Your task to perform on an android device: Go to Amazon Image 0: 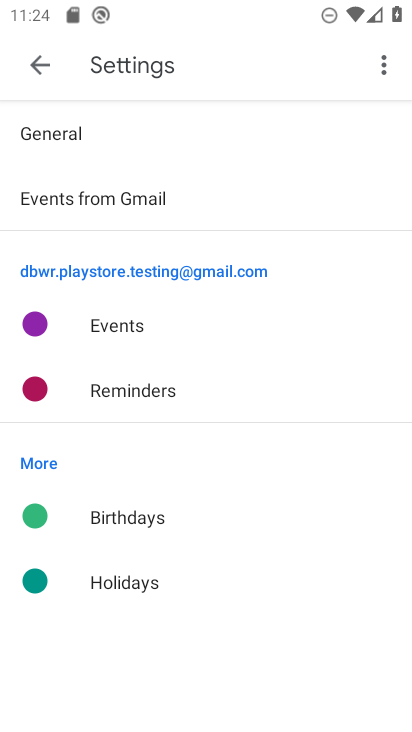
Step 0: press home button
Your task to perform on an android device: Go to Amazon Image 1: 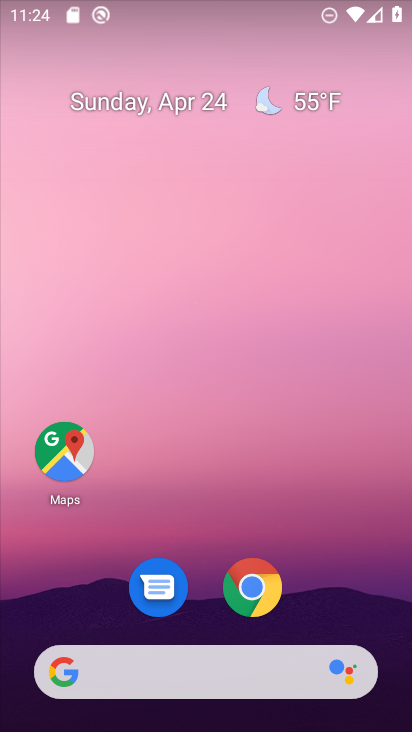
Step 1: click (277, 593)
Your task to perform on an android device: Go to Amazon Image 2: 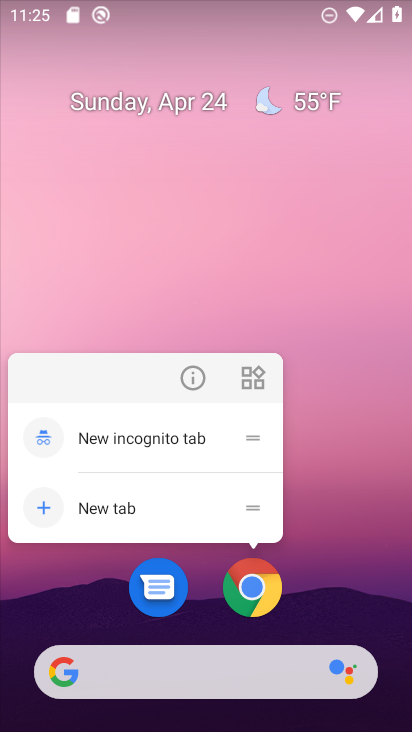
Step 2: click (245, 590)
Your task to perform on an android device: Go to Amazon Image 3: 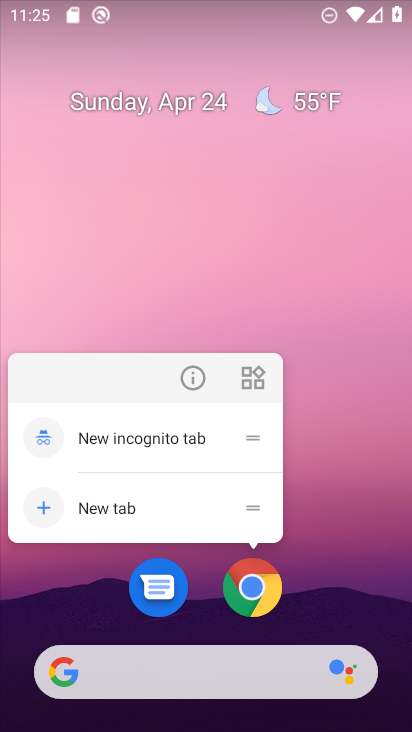
Step 3: click (328, 588)
Your task to perform on an android device: Go to Amazon Image 4: 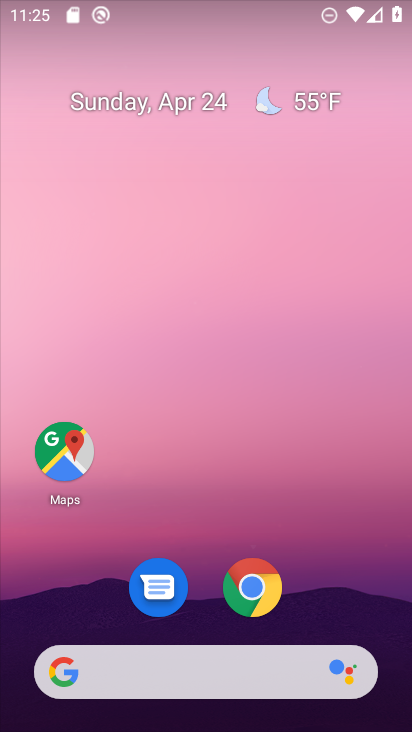
Step 4: drag from (337, 561) to (345, 115)
Your task to perform on an android device: Go to Amazon Image 5: 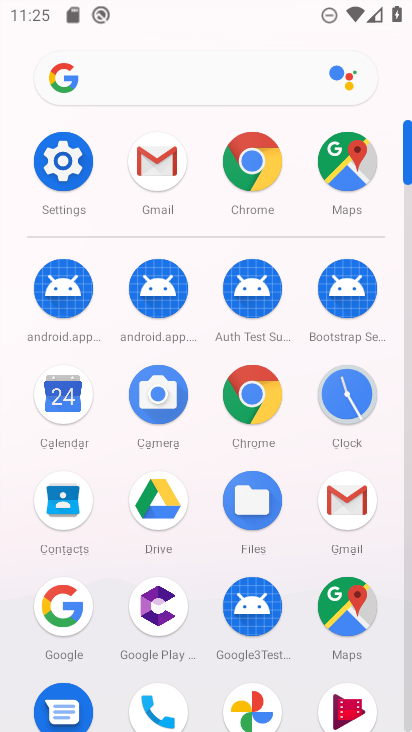
Step 5: click (257, 398)
Your task to perform on an android device: Go to Amazon Image 6: 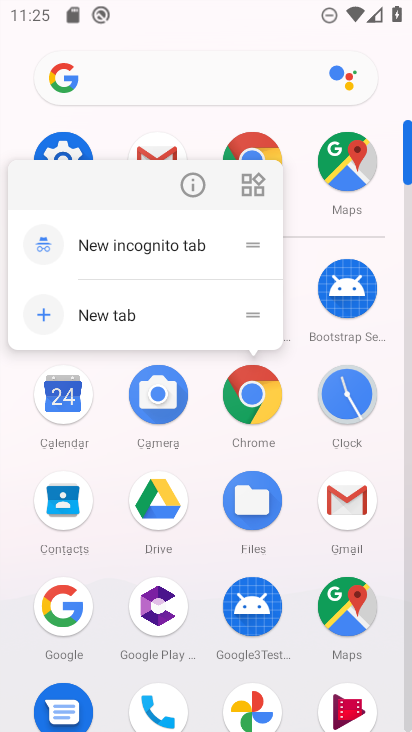
Step 6: click (244, 394)
Your task to perform on an android device: Go to Amazon Image 7: 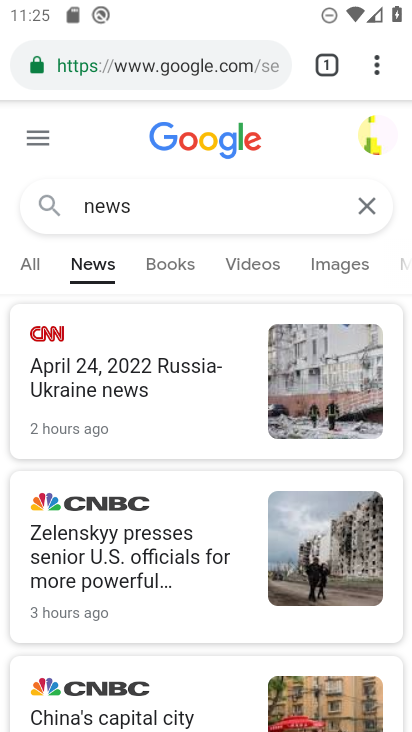
Step 7: click (211, 55)
Your task to perform on an android device: Go to Amazon Image 8: 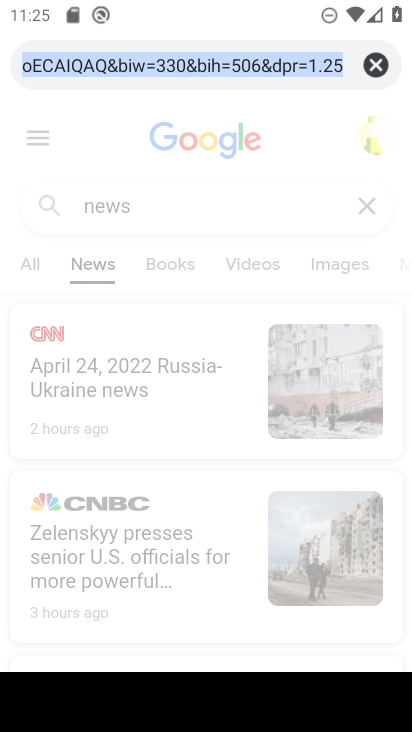
Step 8: type "amazon"
Your task to perform on an android device: Go to Amazon Image 9: 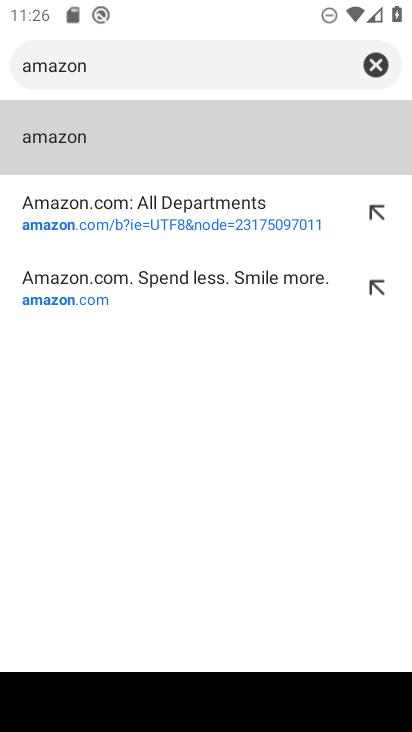
Step 9: click (94, 140)
Your task to perform on an android device: Go to Amazon Image 10: 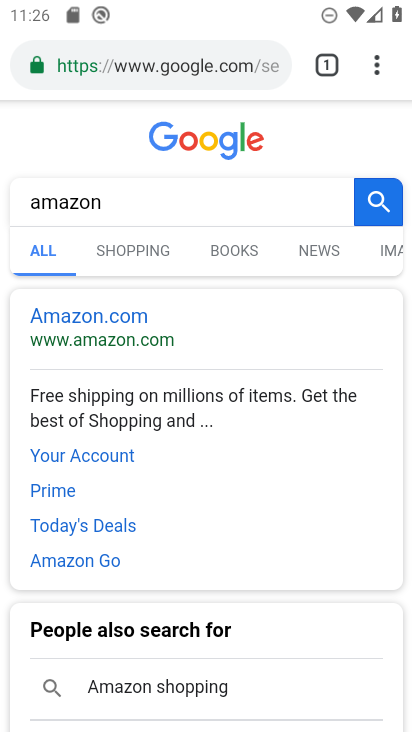
Step 10: click (91, 319)
Your task to perform on an android device: Go to Amazon Image 11: 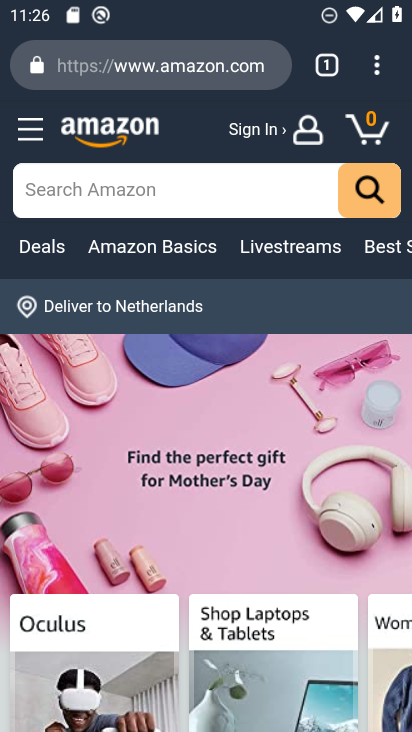
Step 11: task complete